Your task to perform on an android device: toggle sleep mode Image 0: 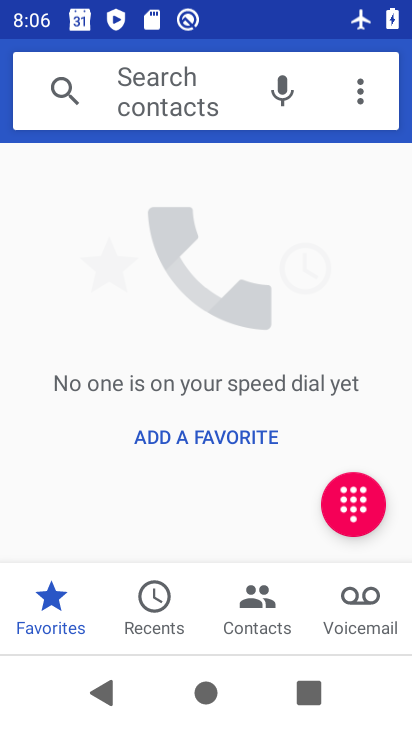
Step 0: press home button
Your task to perform on an android device: toggle sleep mode Image 1: 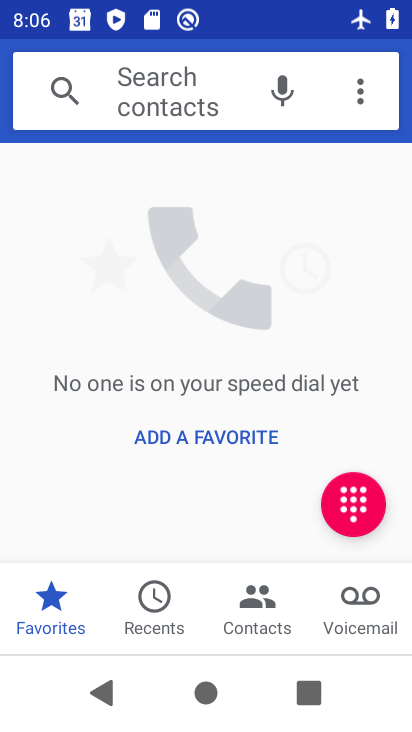
Step 1: press home button
Your task to perform on an android device: toggle sleep mode Image 2: 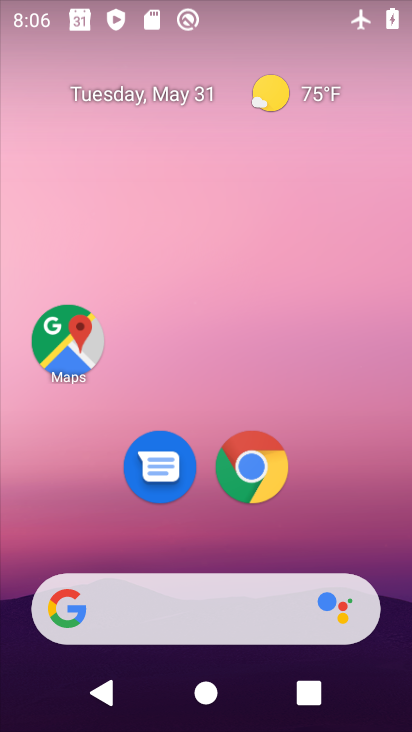
Step 2: drag from (214, 553) to (212, 175)
Your task to perform on an android device: toggle sleep mode Image 3: 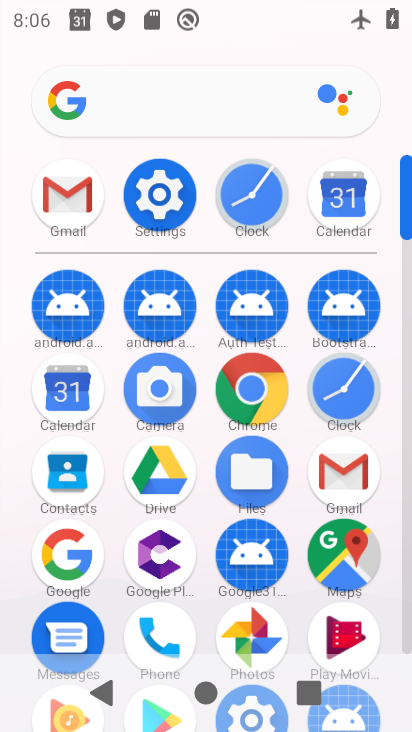
Step 3: click (146, 184)
Your task to perform on an android device: toggle sleep mode Image 4: 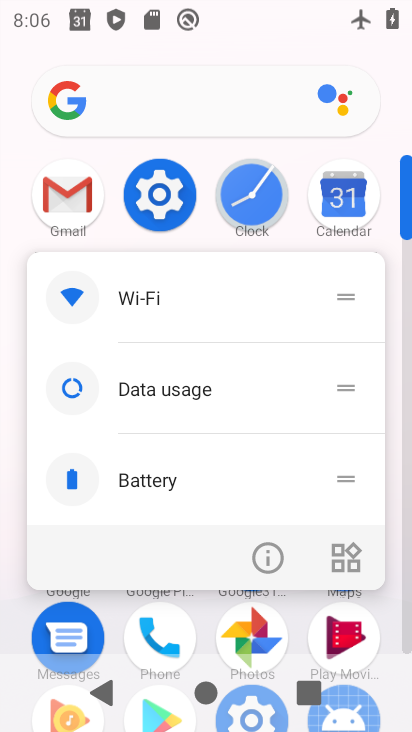
Step 4: click (256, 544)
Your task to perform on an android device: toggle sleep mode Image 5: 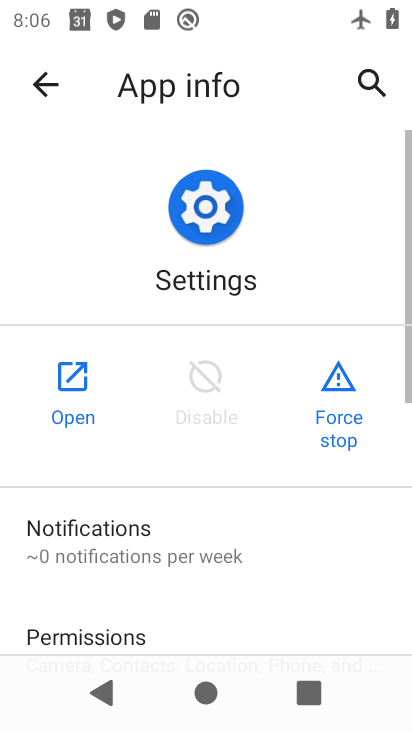
Step 5: click (61, 419)
Your task to perform on an android device: toggle sleep mode Image 6: 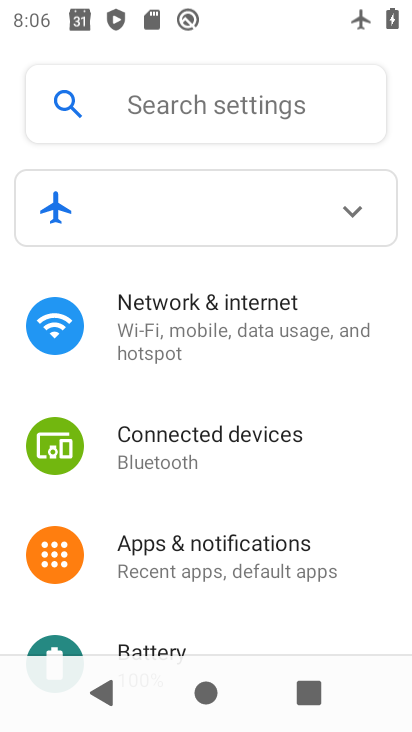
Step 6: drag from (212, 544) to (296, 203)
Your task to perform on an android device: toggle sleep mode Image 7: 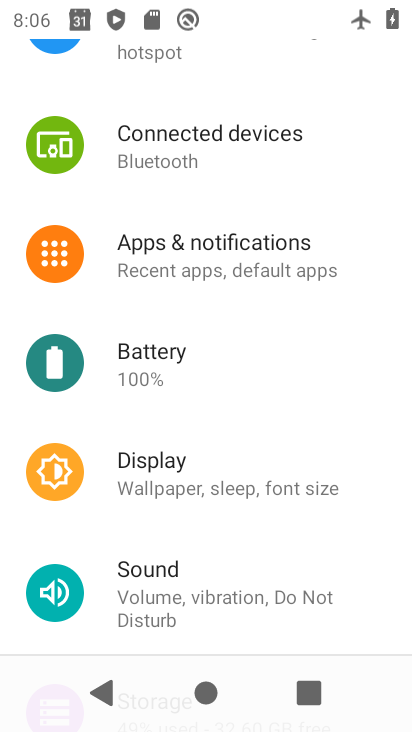
Step 7: click (178, 474)
Your task to perform on an android device: toggle sleep mode Image 8: 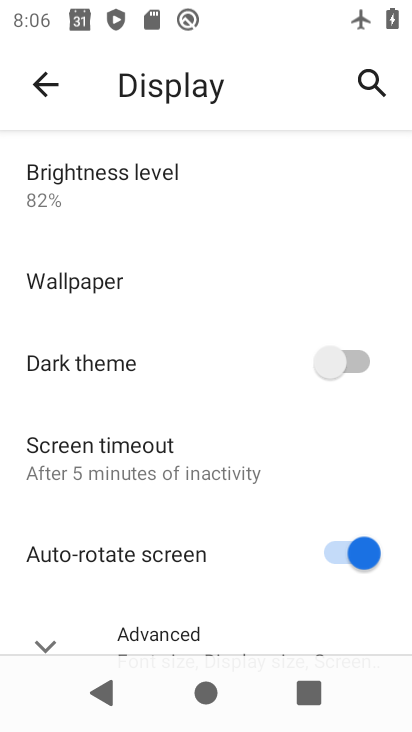
Step 8: click (163, 465)
Your task to perform on an android device: toggle sleep mode Image 9: 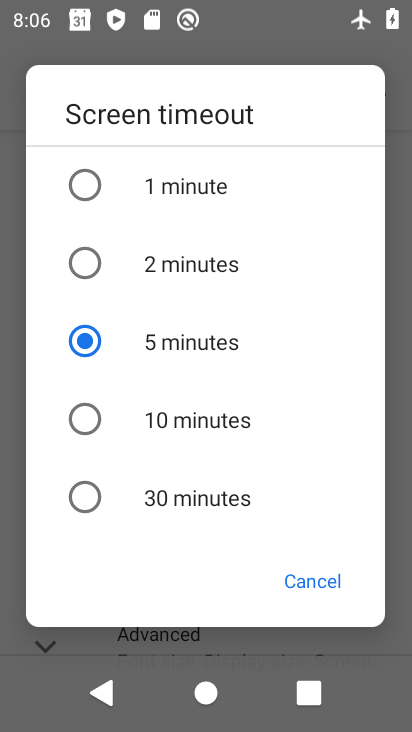
Step 9: task complete